Your task to perform on an android device: delete a single message in the gmail app Image 0: 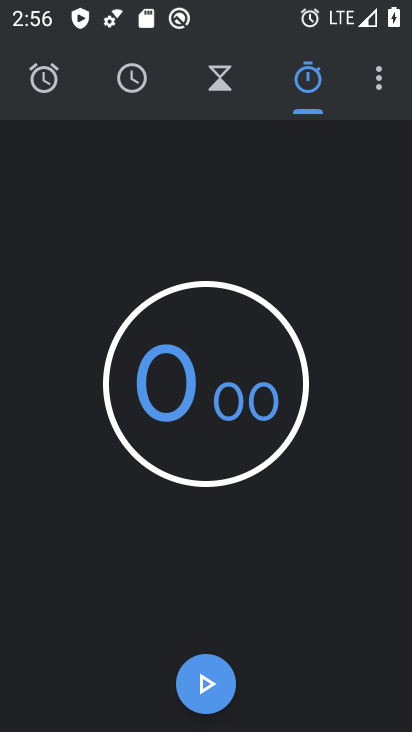
Step 0: press back button
Your task to perform on an android device: delete a single message in the gmail app Image 1: 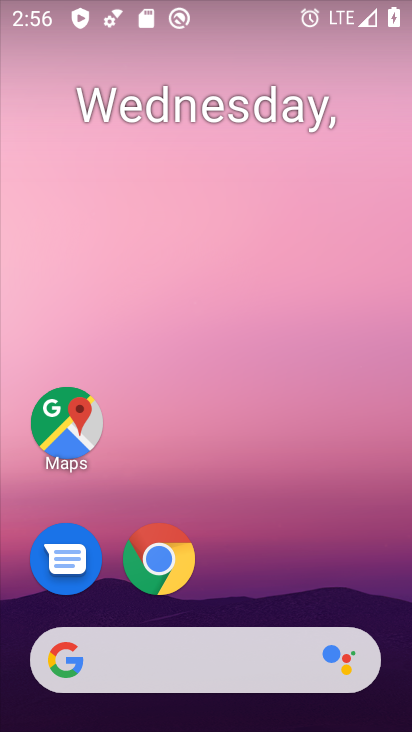
Step 1: click (282, 10)
Your task to perform on an android device: delete a single message in the gmail app Image 2: 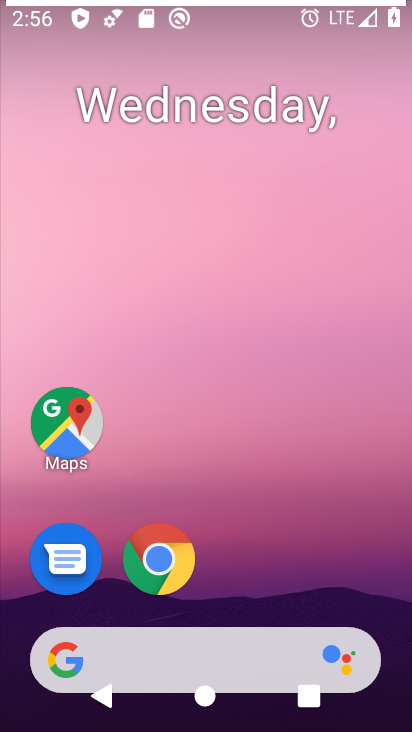
Step 2: drag from (230, 580) to (308, 10)
Your task to perform on an android device: delete a single message in the gmail app Image 3: 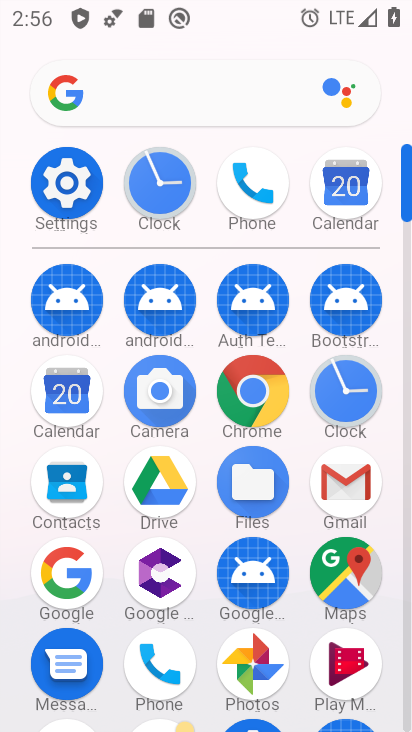
Step 3: click (345, 494)
Your task to perform on an android device: delete a single message in the gmail app Image 4: 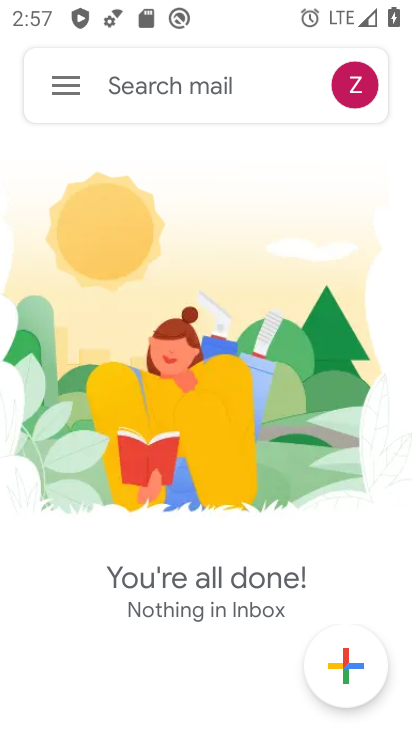
Step 4: click (62, 82)
Your task to perform on an android device: delete a single message in the gmail app Image 5: 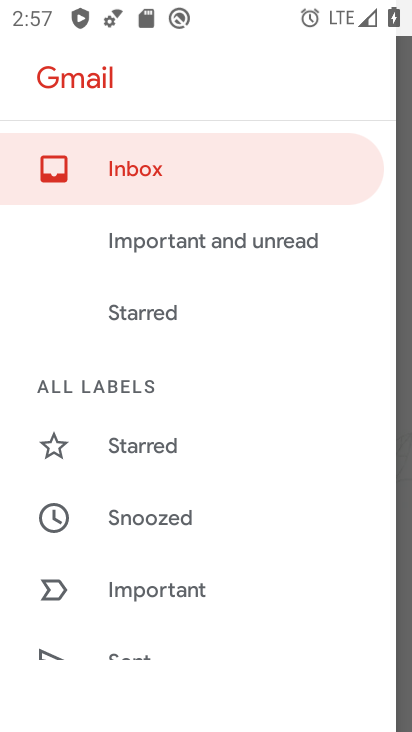
Step 5: drag from (155, 620) to (239, 96)
Your task to perform on an android device: delete a single message in the gmail app Image 6: 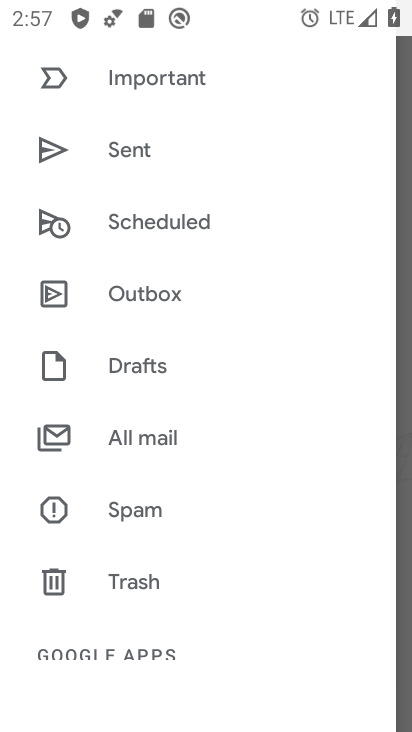
Step 6: click (198, 433)
Your task to perform on an android device: delete a single message in the gmail app Image 7: 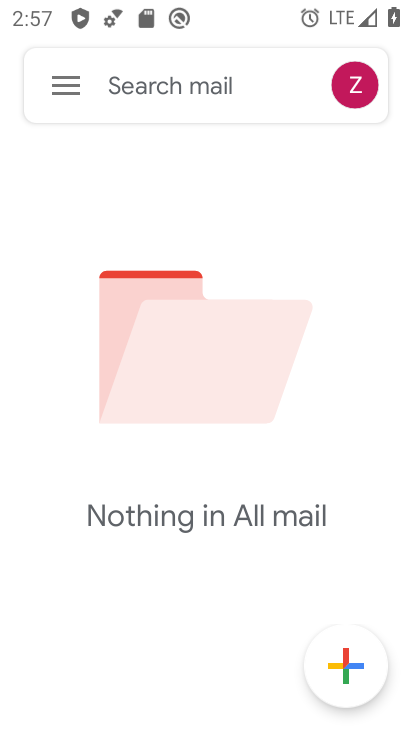
Step 7: task complete